Your task to perform on an android device: turn on translation in the chrome app Image 0: 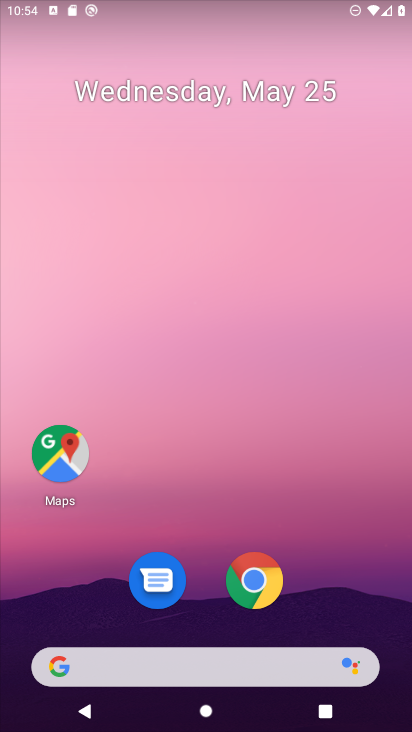
Step 0: drag from (6, 602) to (255, 216)
Your task to perform on an android device: turn on translation in the chrome app Image 1: 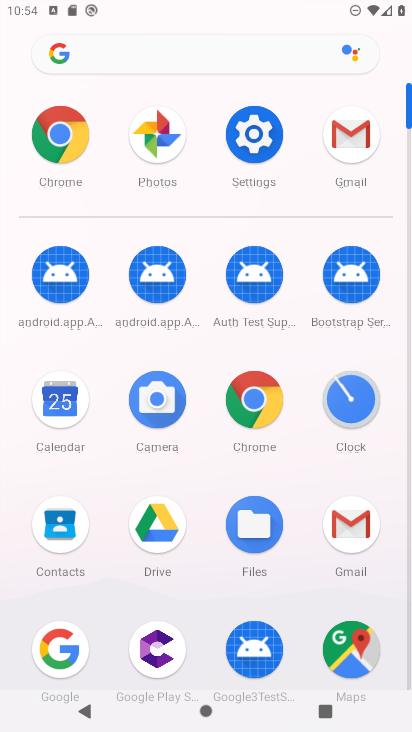
Step 1: click (48, 118)
Your task to perform on an android device: turn on translation in the chrome app Image 2: 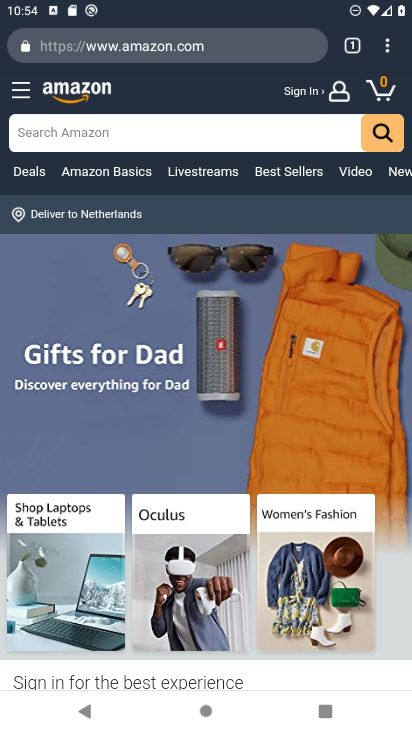
Step 2: click (389, 48)
Your task to perform on an android device: turn on translation in the chrome app Image 3: 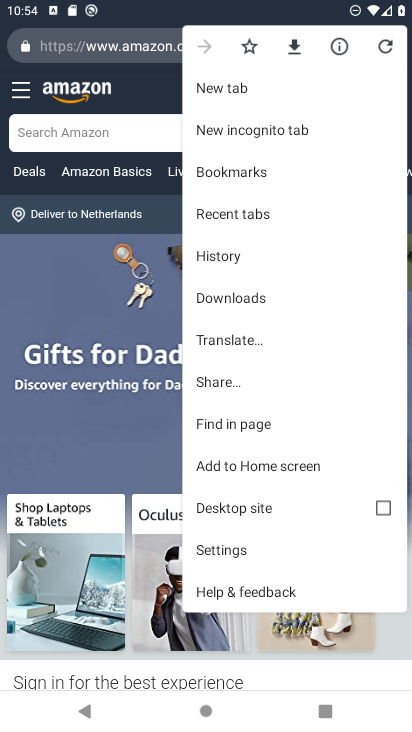
Step 3: click (229, 549)
Your task to perform on an android device: turn on translation in the chrome app Image 4: 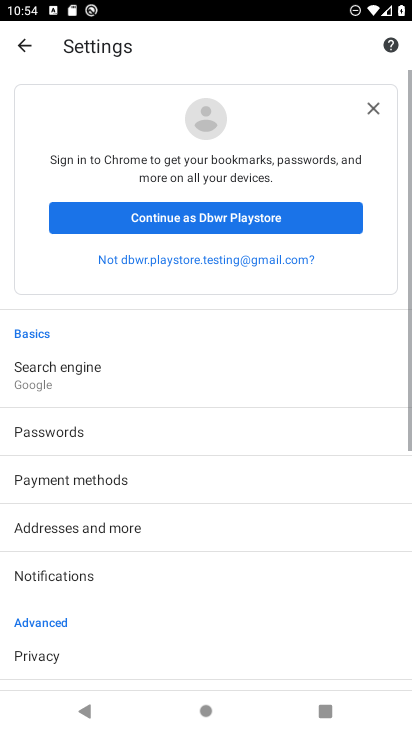
Step 4: drag from (6, 553) to (181, 74)
Your task to perform on an android device: turn on translation in the chrome app Image 5: 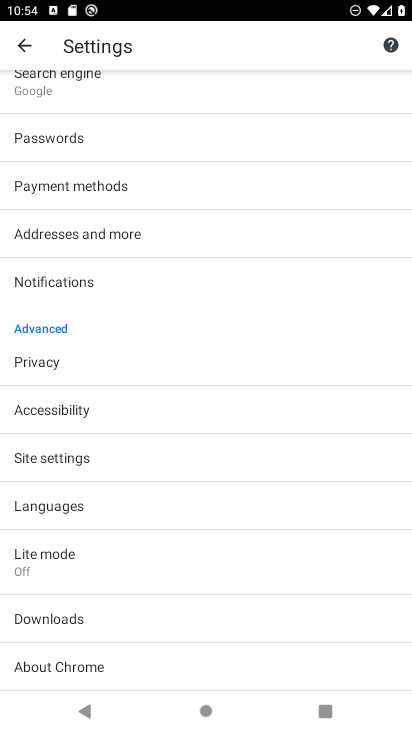
Step 5: click (30, 515)
Your task to perform on an android device: turn on translation in the chrome app Image 6: 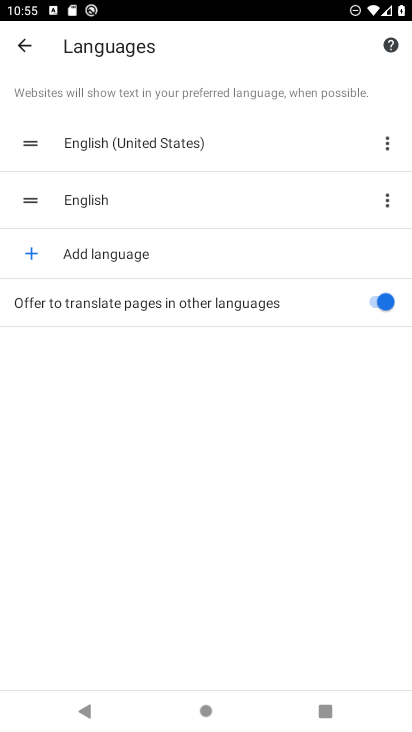
Step 6: task complete